Your task to perform on an android device: turn on the 24-hour format for clock Image 0: 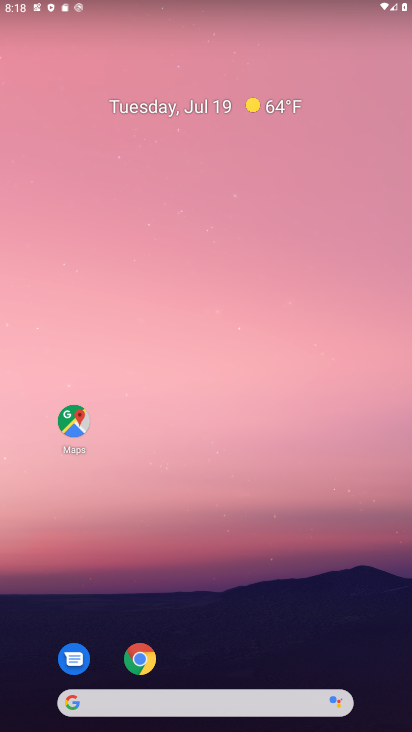
Step 0: drag from (304, 619) to (261, 192)
Your task to perform on an android device: turn on the 24-hour format for clock Image 1: 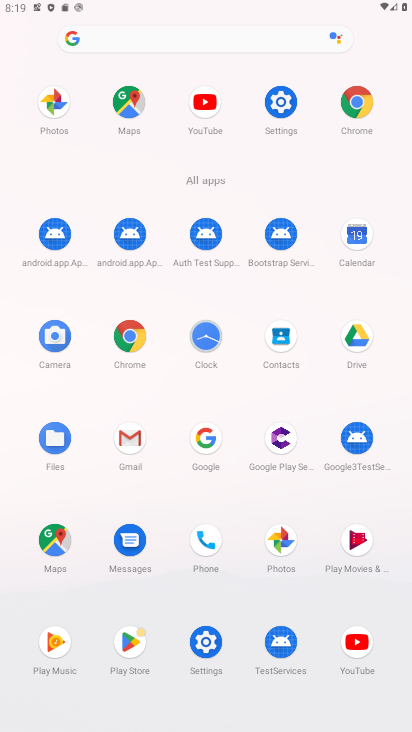
Step 1: click (187, 334)
Your task to perform on an android device: turn on the 24-hour format for clock Image 2: 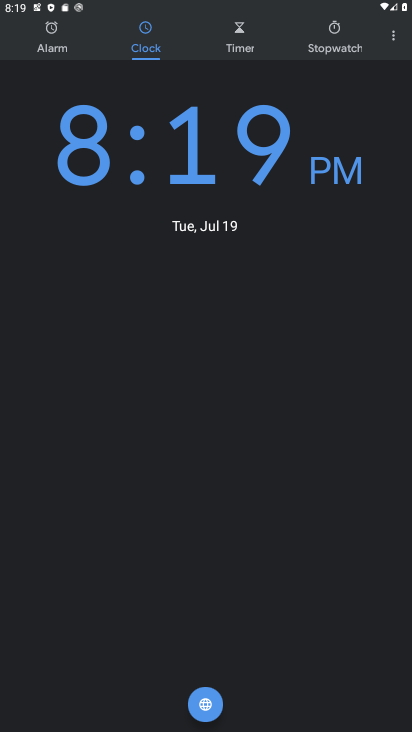
Step 2: click (396, 51)
Your task to perform on an android device: turn on the 24-hour format for clock Image 3: 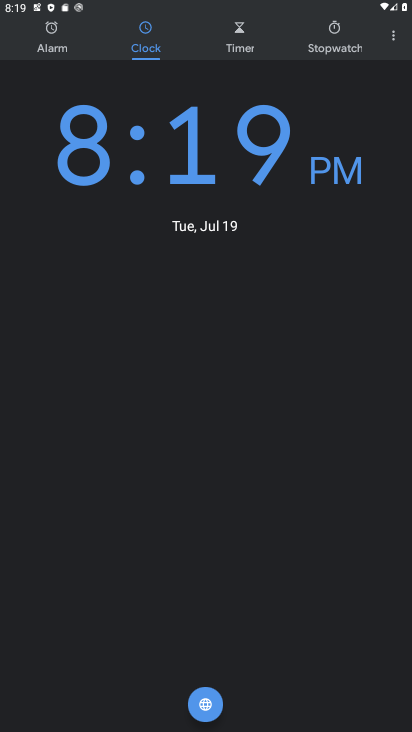
Step 3: click (405, 42)
Your task to perform on an android device: turn on the 24-hour format for clock Image 4: 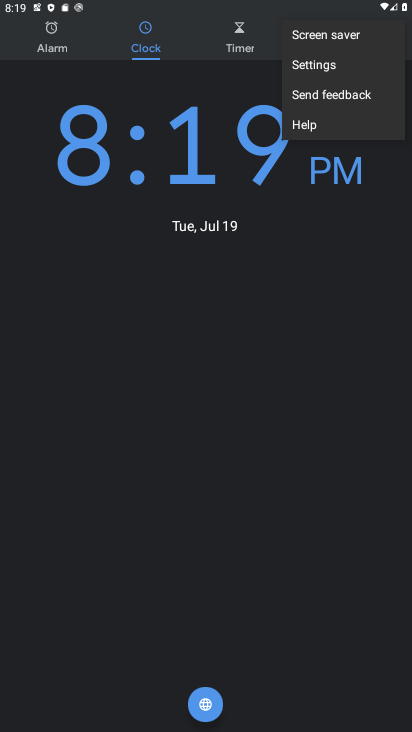
Step 4: click (373, 75)
Your task to perform on an android device: turn on the 24-hour format for clock Image 5: 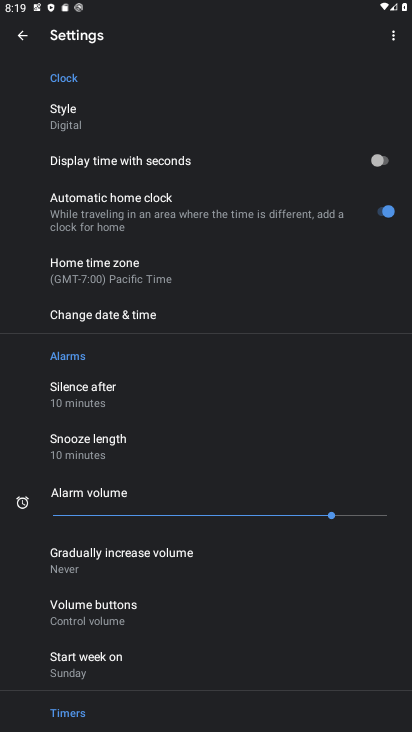
Step 5: click (324, 311)
Your task to perform on an android device: turn on the 24-hour format for clock Image 6: 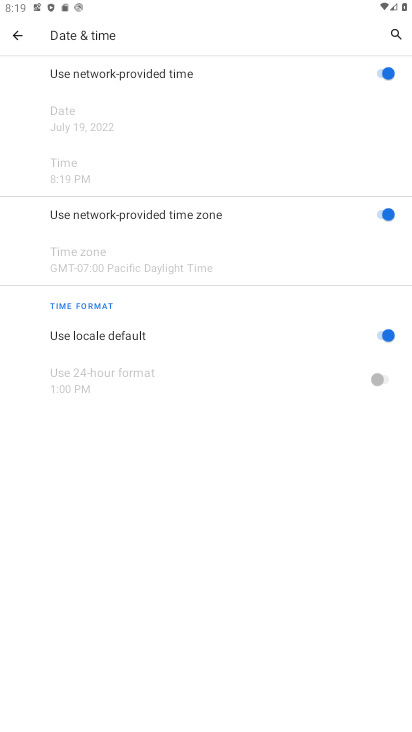
Step 6: click (381, 336)
Your task to perform on an android device: turn on the 24-hour format for clock Image 7: 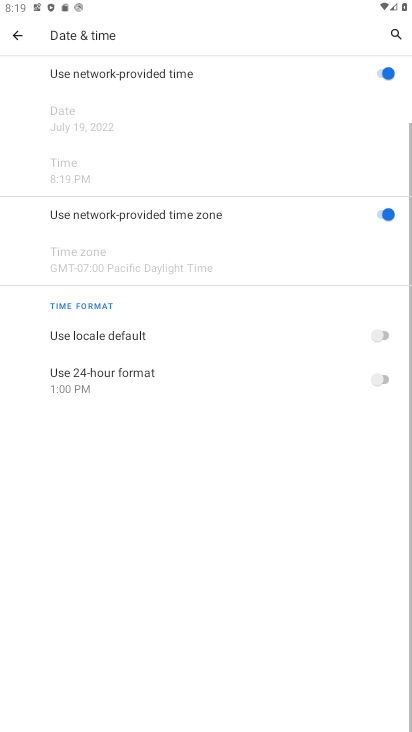
Step 7: click (387, 381)
Your task to perform on an android device: turn on the 24-hour format for clock Image 8: 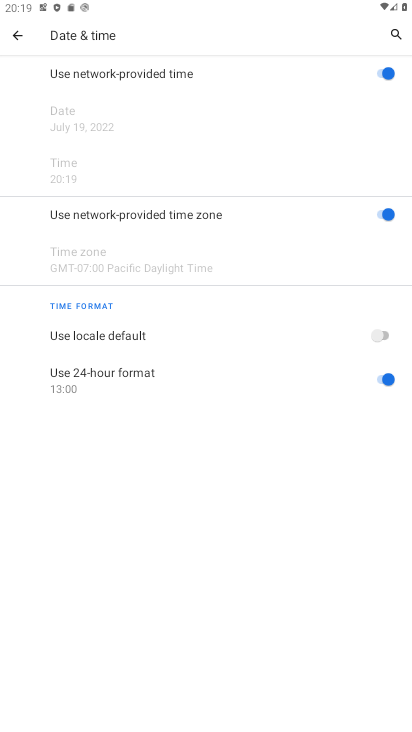
Step 8: task complete